Your task to perform on an android device: Open wifi settings Image 0: 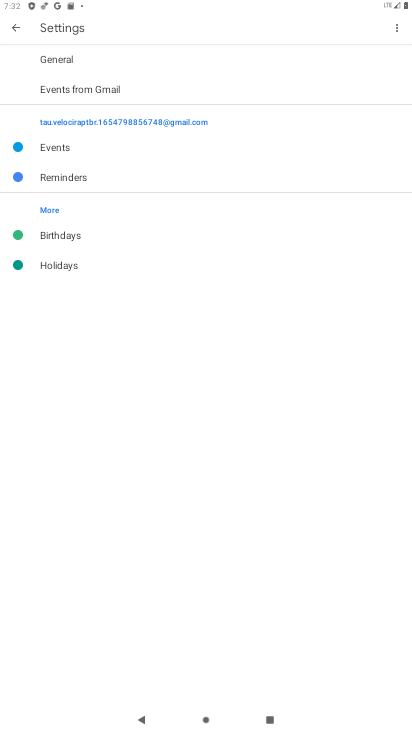
Step 0: press home button
Your task to perform on an android device: Open wifi settings Image 1: 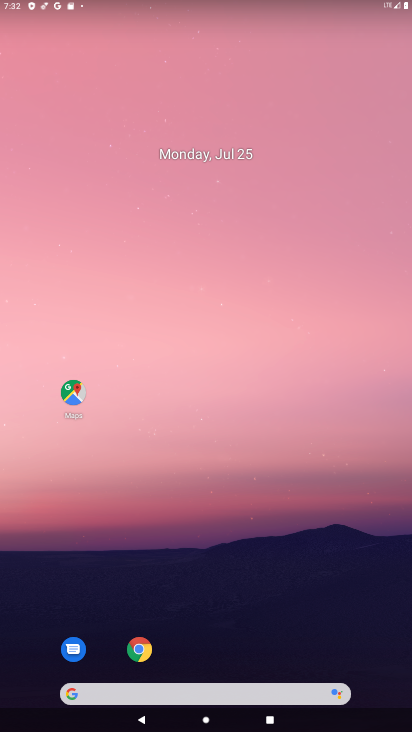
Step 1: drag from (201, 636) to (232, 12)
Your task to perform on an android device: Open wifi settings Image 2: 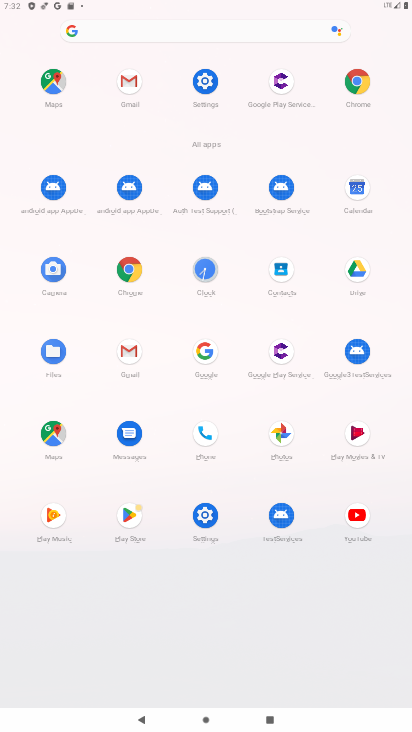
Step 2: click (203, 69)
Your task to perform on an android device: Open wifi settings Image 3: 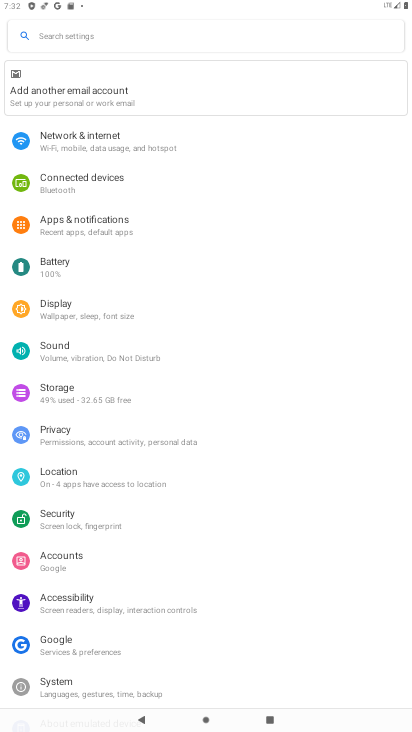
Step 3: click (119, 130)
Your task to perform on an android device: Open wifi settings Image 4: 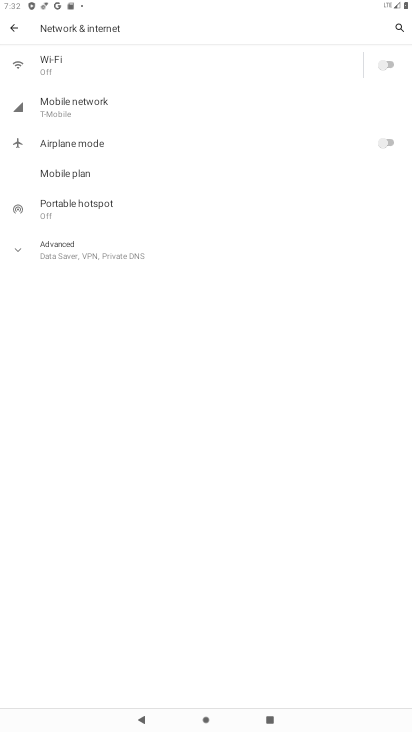
Step 4: click (55, 64)
Your task to perform on an android device: Open wifi settings Image 5: 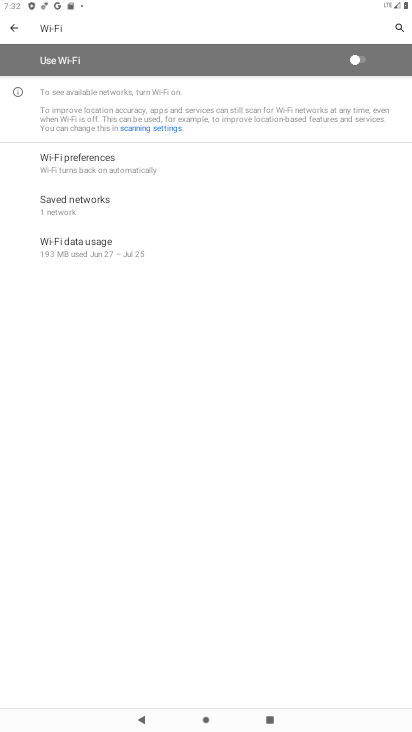
Step 5: task complete